Your task to perform on an android device: change the clock style Image 0: 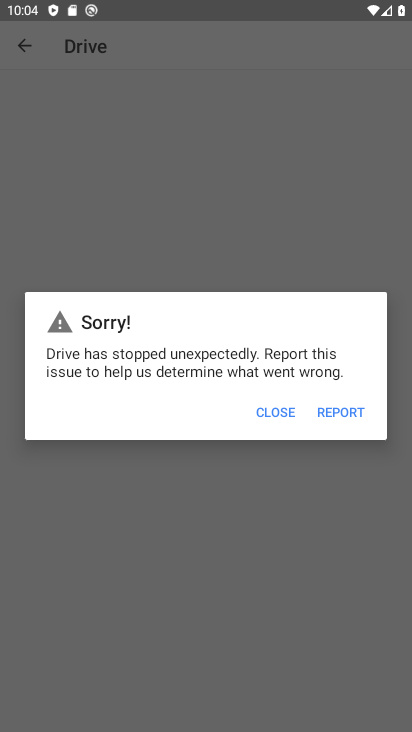
Step 0: press home button
Your task to perform on an android device: change the clock style Image 1: 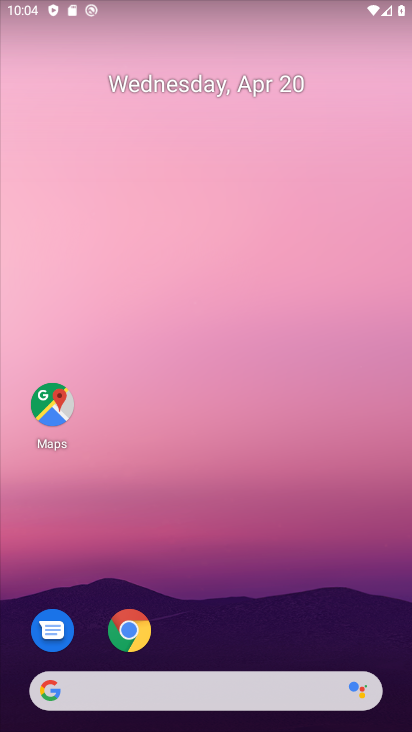
Step 1: drag from (280, 326) to (290, 9)
Your task to perform on an android device: change the clock style Image 2: 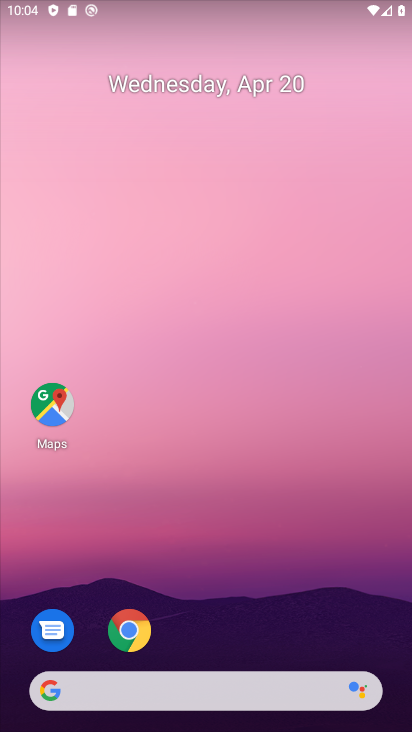
Step 2: drag from (258, 584) to (287, 183)
Your task to perform on an android device: change the clock style Image 3: 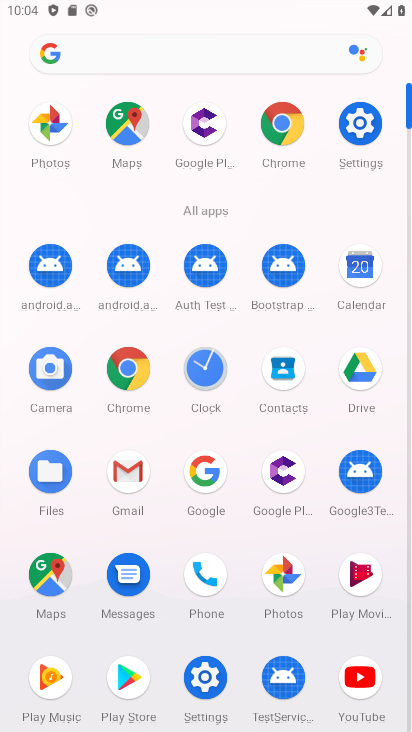
Step 3: click (193, 377)
Your task to perform on an android device: change the clock style Image 4: 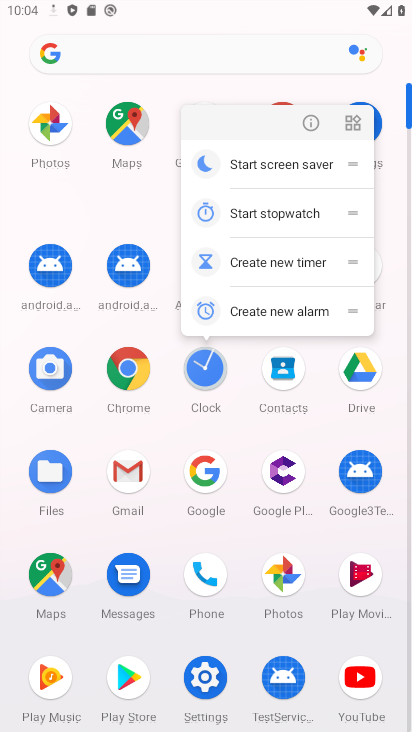
Step 4: click (194, 374)
Your task to perform on an android device: change the clock style Image 5: 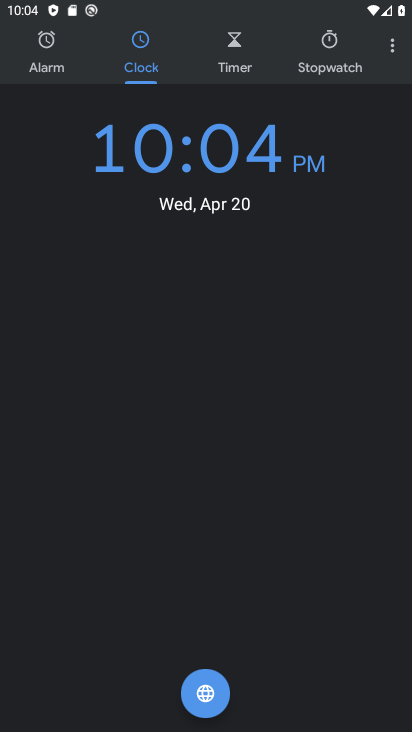
Step 5: click (398, 47)
Your task to perform on an android device: change the clock style Image 6: 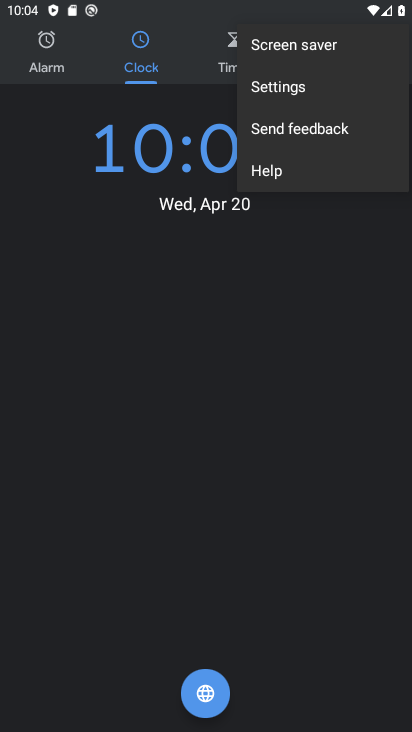
Step 6: click (261, 90)
Your task to perform on an android device: change the clock style Image 7: 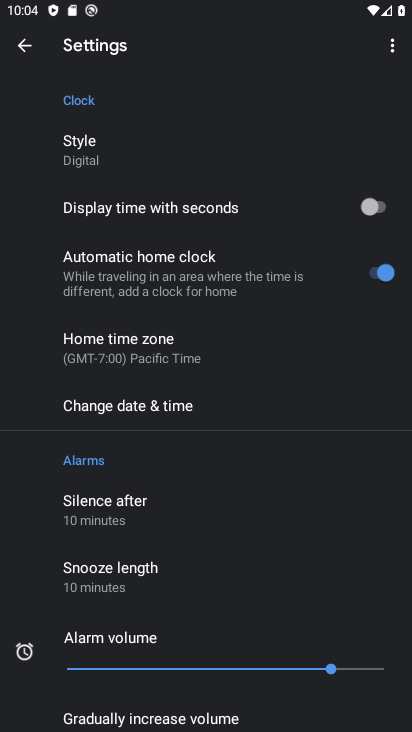
Step 7: click (212, 142)
Your task to perform on an android device: change the clock style Image 8: 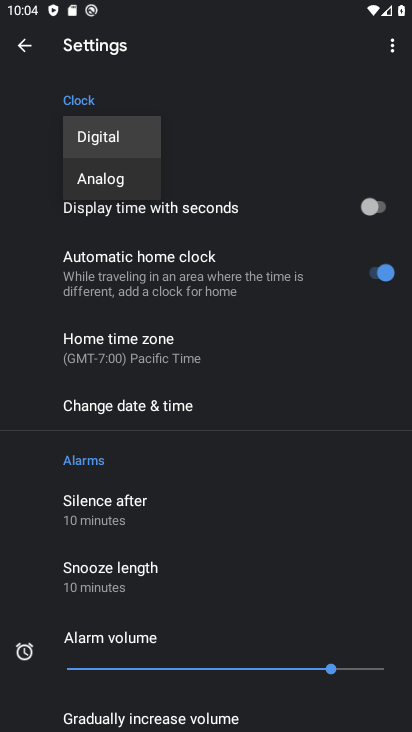
Step 8: click (224, 152)
Your task to perform on an android device: change the clock style Image 9: 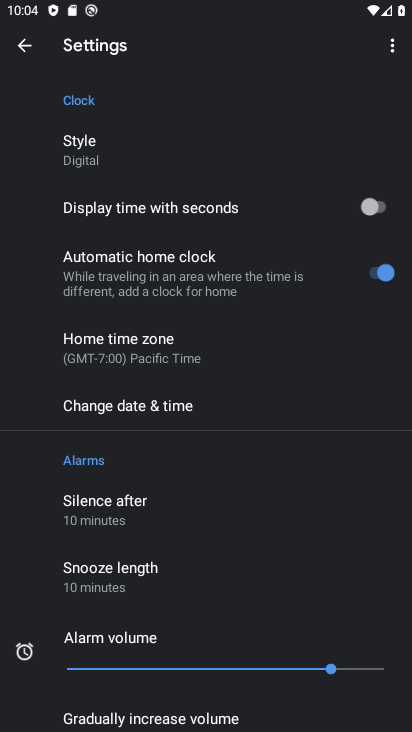
Step 9: click (82, 150)
Your task to perform on an android device: change the clock style Image 10: 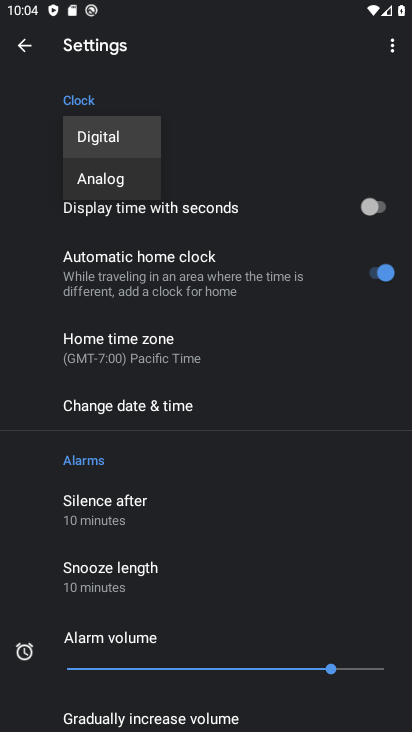
Step 10: click (104, 180)
Your task to perform on an android device: change the clock style Image 11: 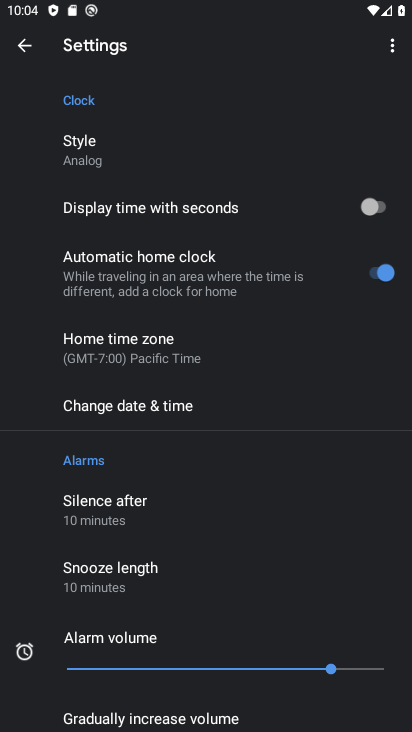
Step 11: task complete